Your task to perform on an android device: change alarm snooze length Image 0: 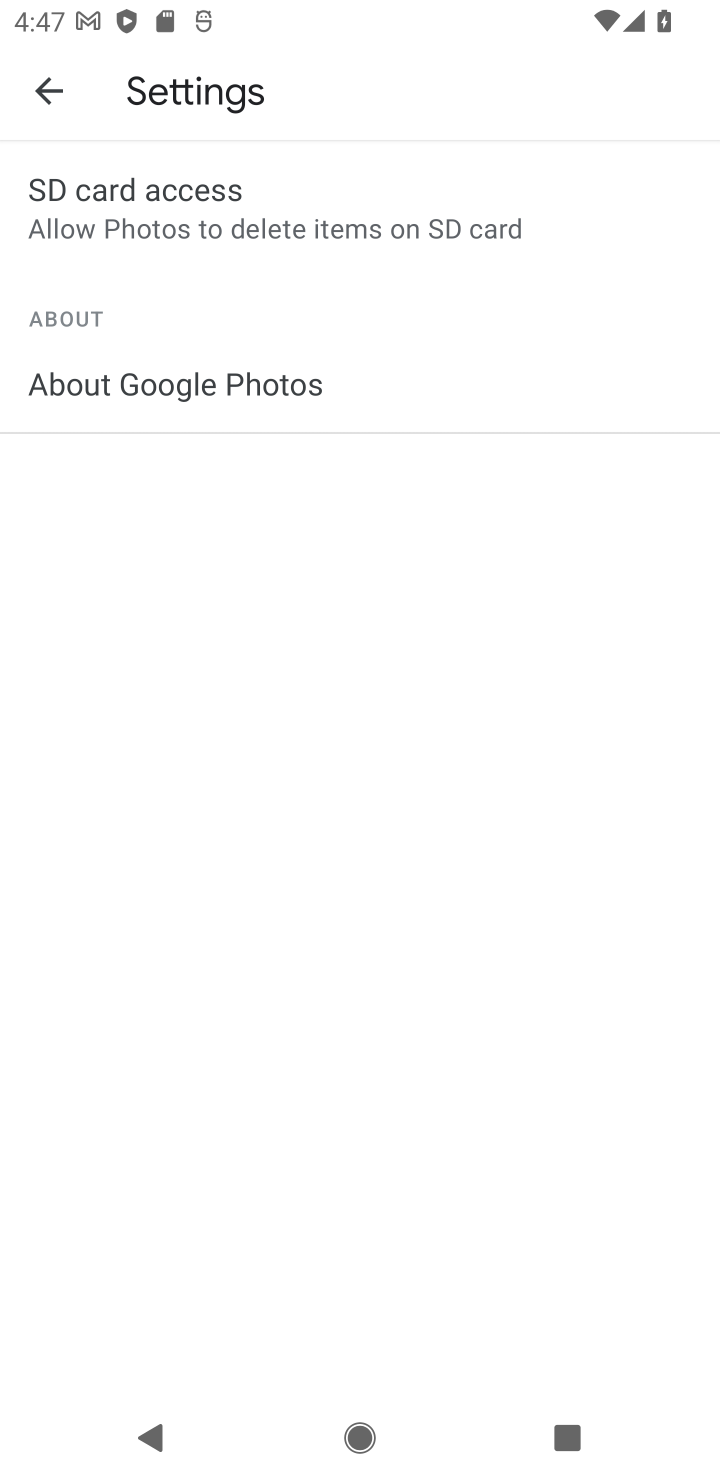
Step 0: press home button
Your task to perform on an android device: change alarm snooze length Image 1: 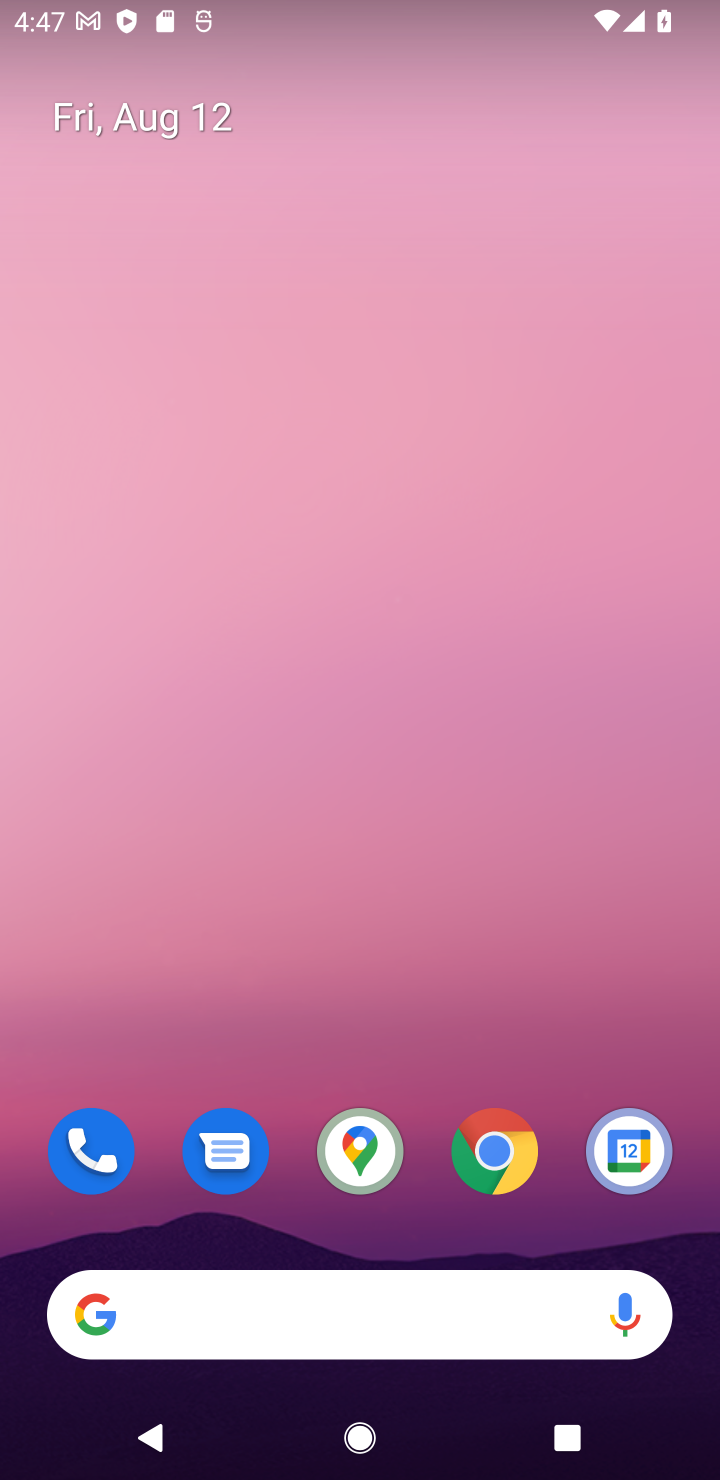
Step 1: drag from (545, 1011) to (707, 702)
Your task to perform on an android device: change alarm snooze length Image 2: 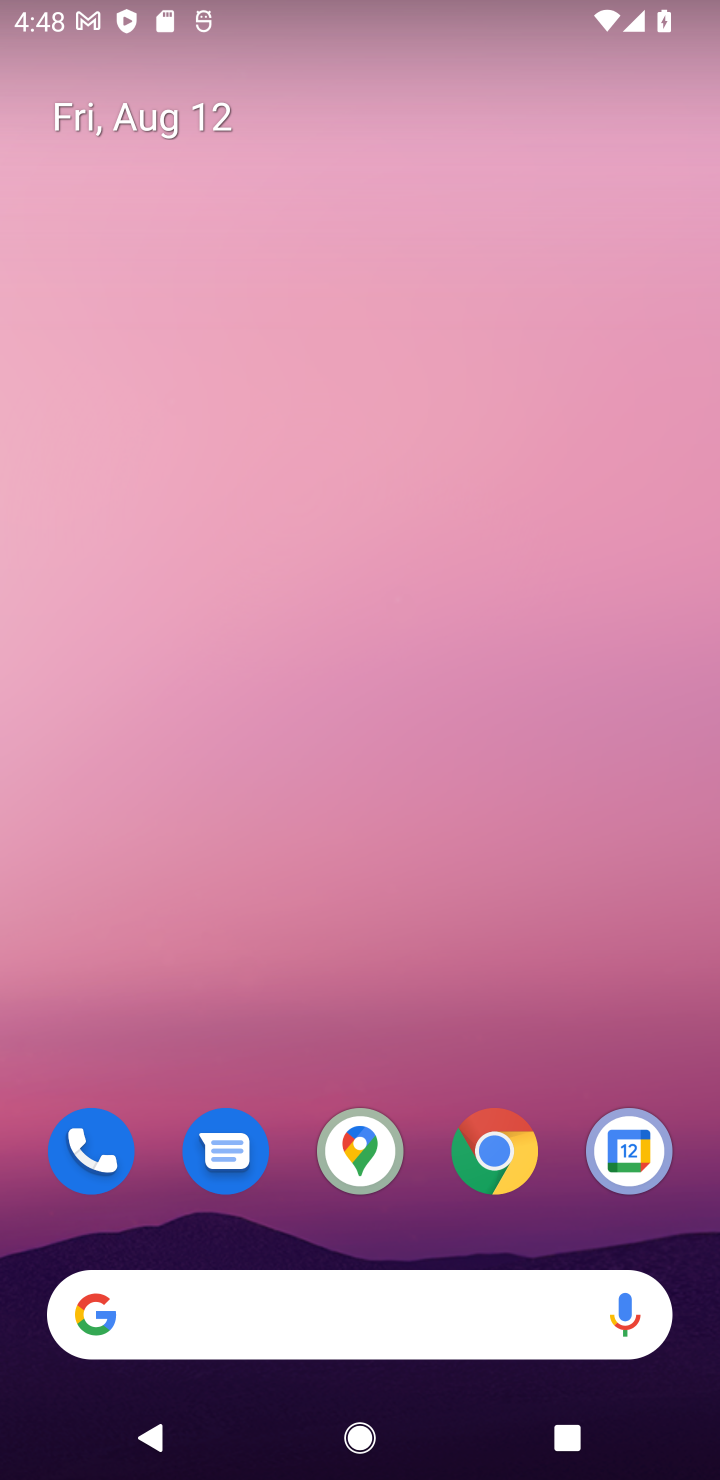
Step 2: drag from (473, 1022) to (583, 155)
Your task to perform on an android device: change alarm snooze length Image 3: 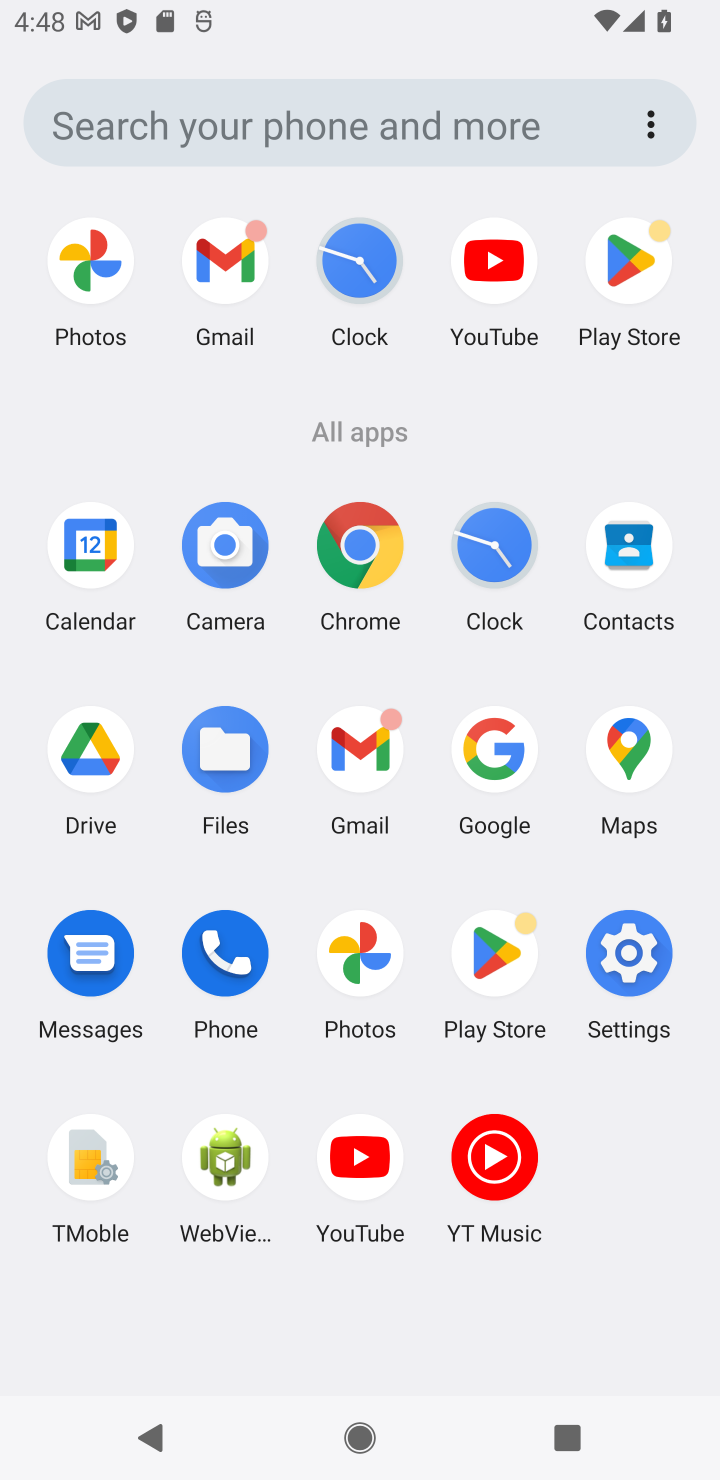
Step 3: click (487, 540)
Your task to perform on an android device: change alarm snooze length Image 4: 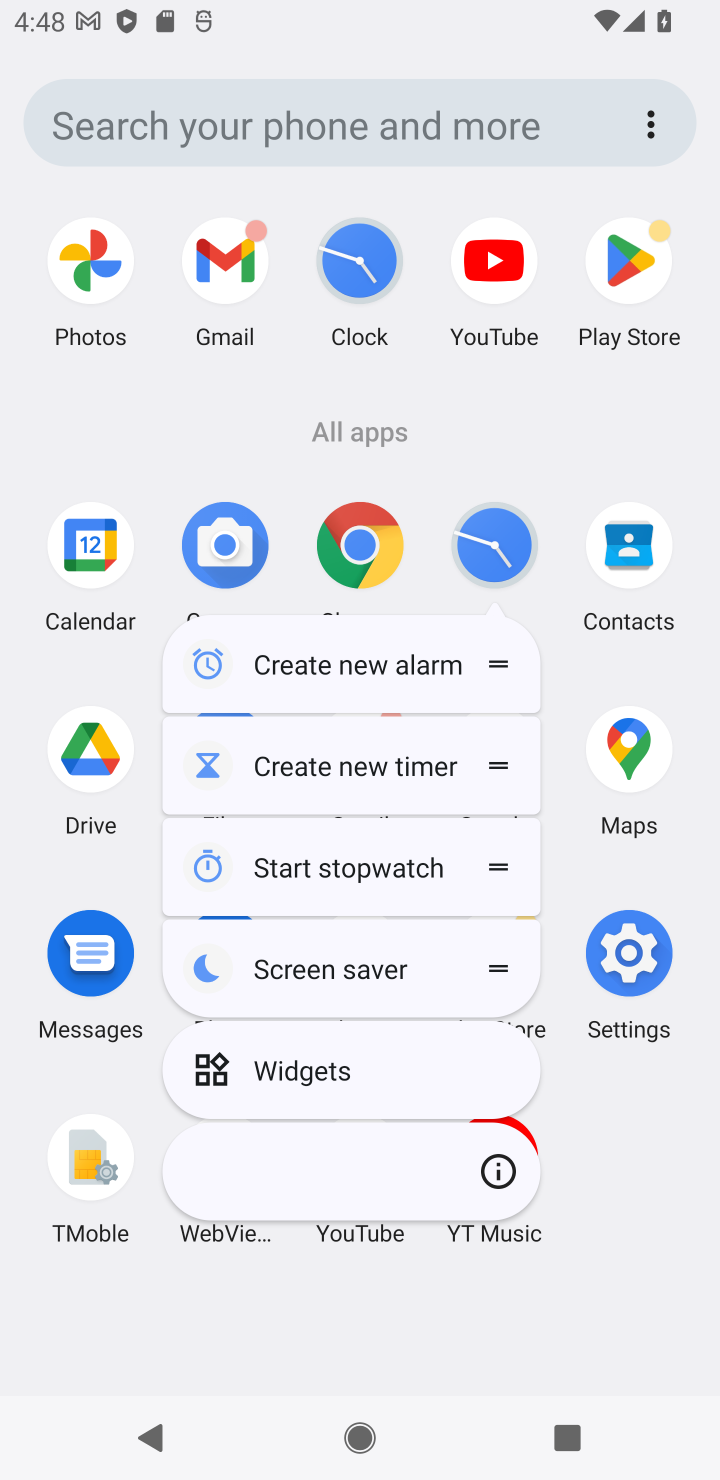
Step 4: click (511, 538)
Your task to perform on an android device: change alarm snooze length Image 5: 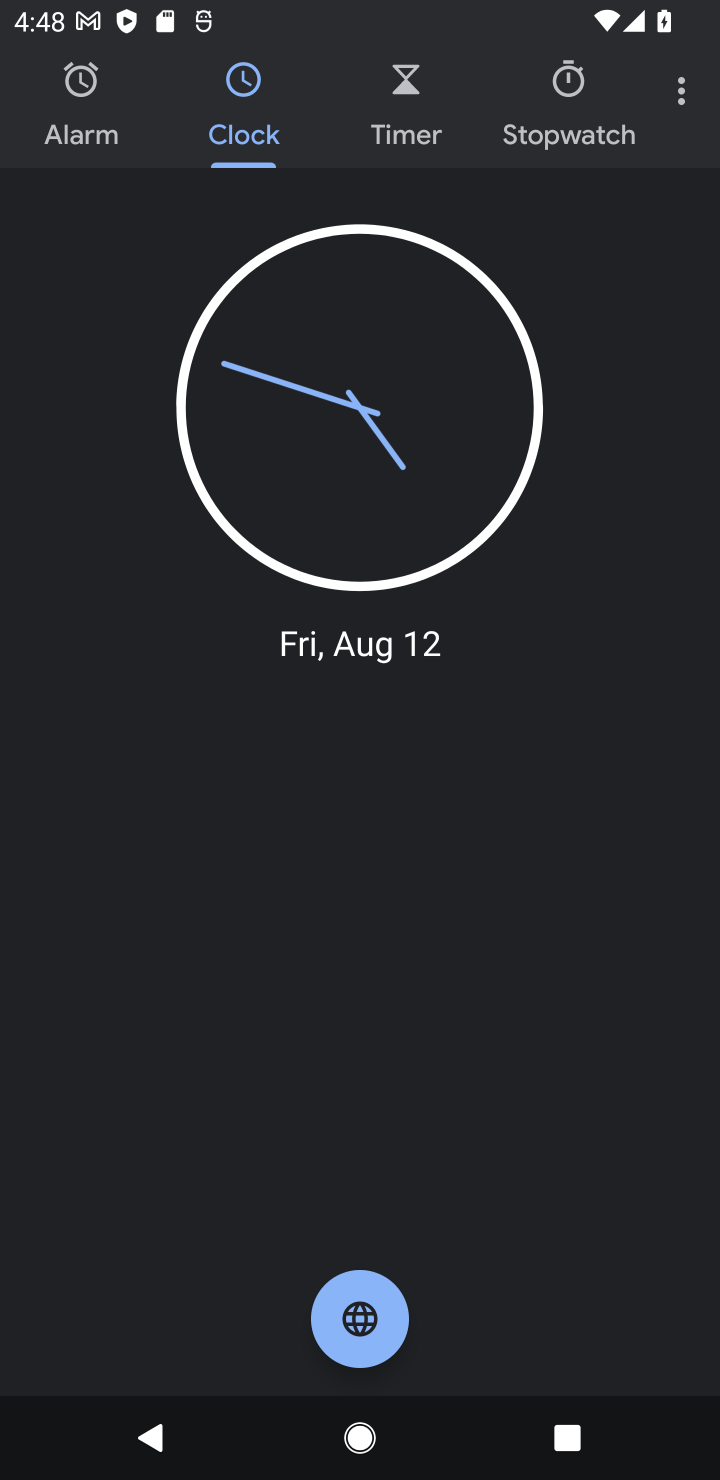
Step 5: click (675, 80)
Your task to perform on an android device: change alarm snooze length Image 6: 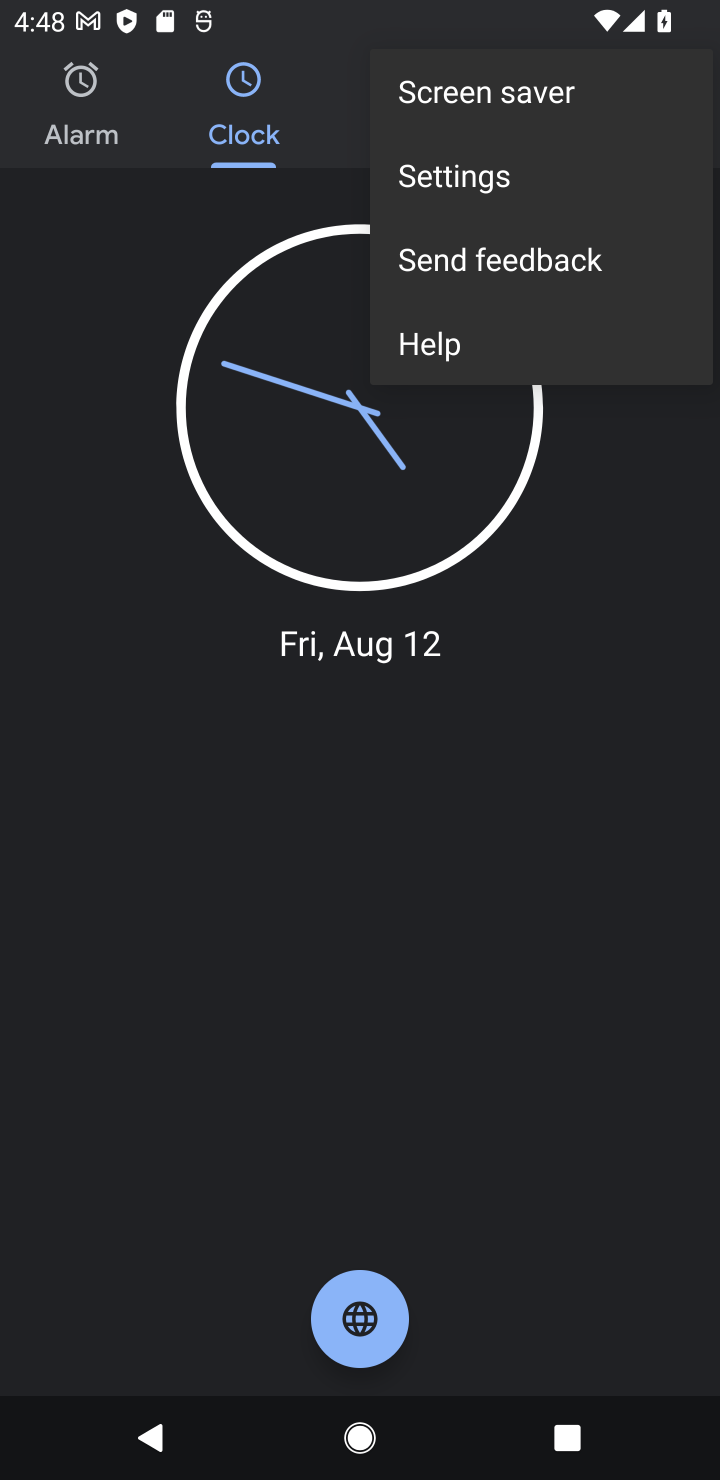
Step 6: click (473, 182)
Your task to perform on an android device: change alarm snooze length Image 7: 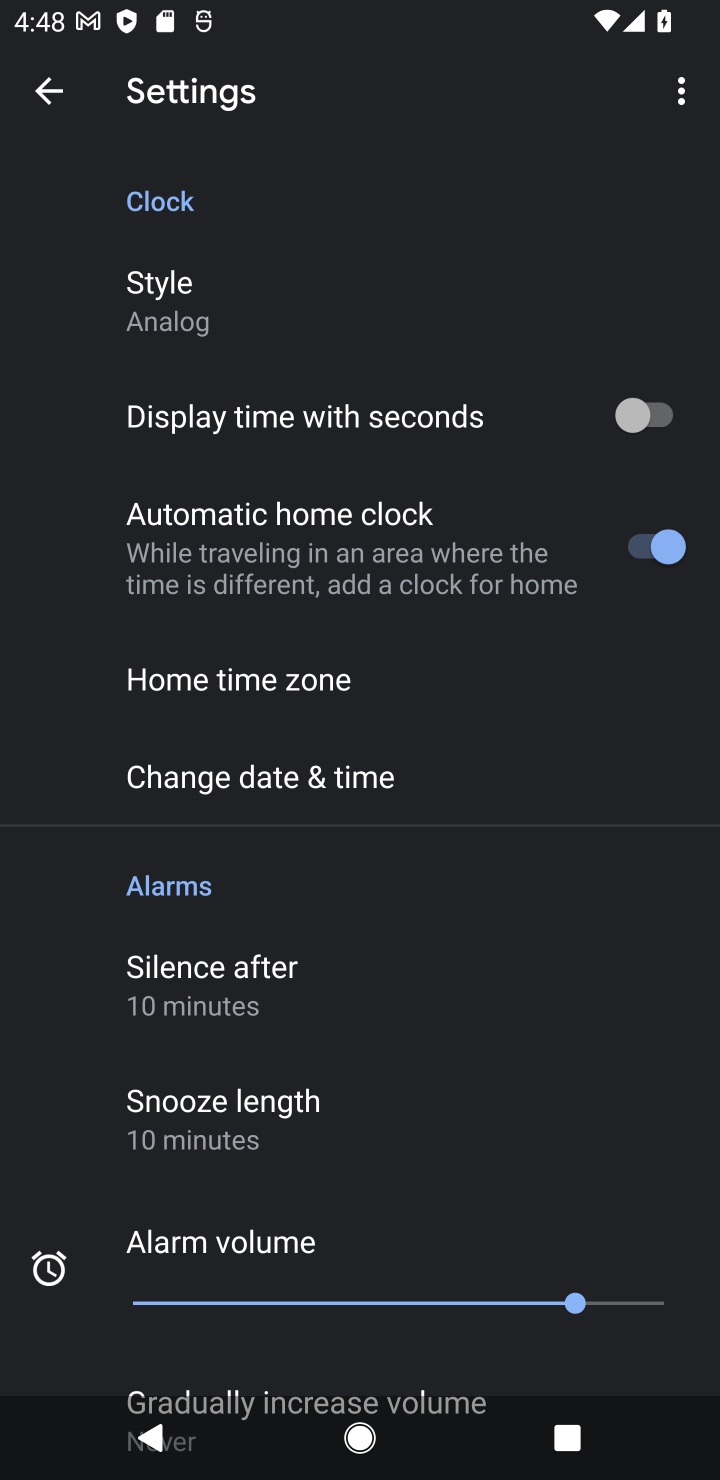
Step 7: click (325, 1124)
Your task to perform on an android device: change alarm snooze length Image 8: 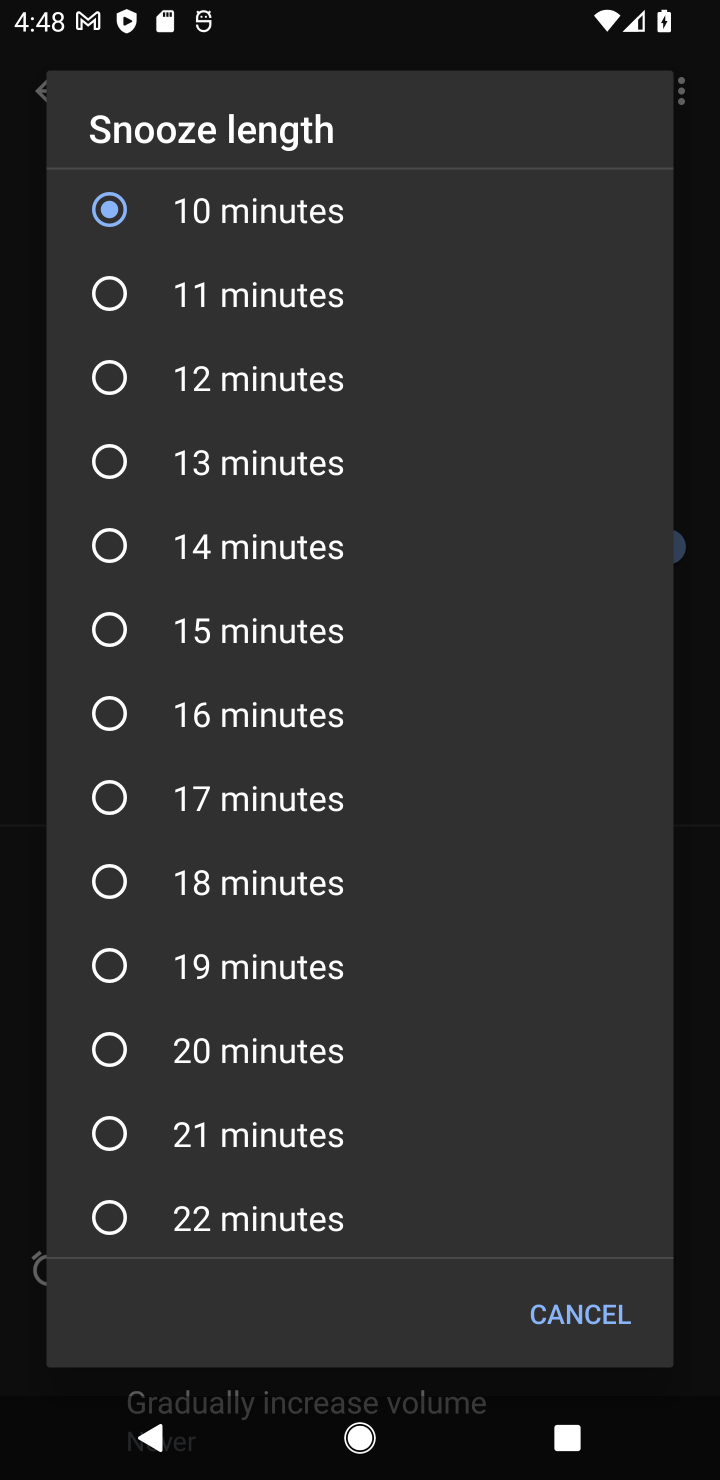
Step 8: click (174, 280)
Your task to perform on an android device: change alarm snooze length Image 9: 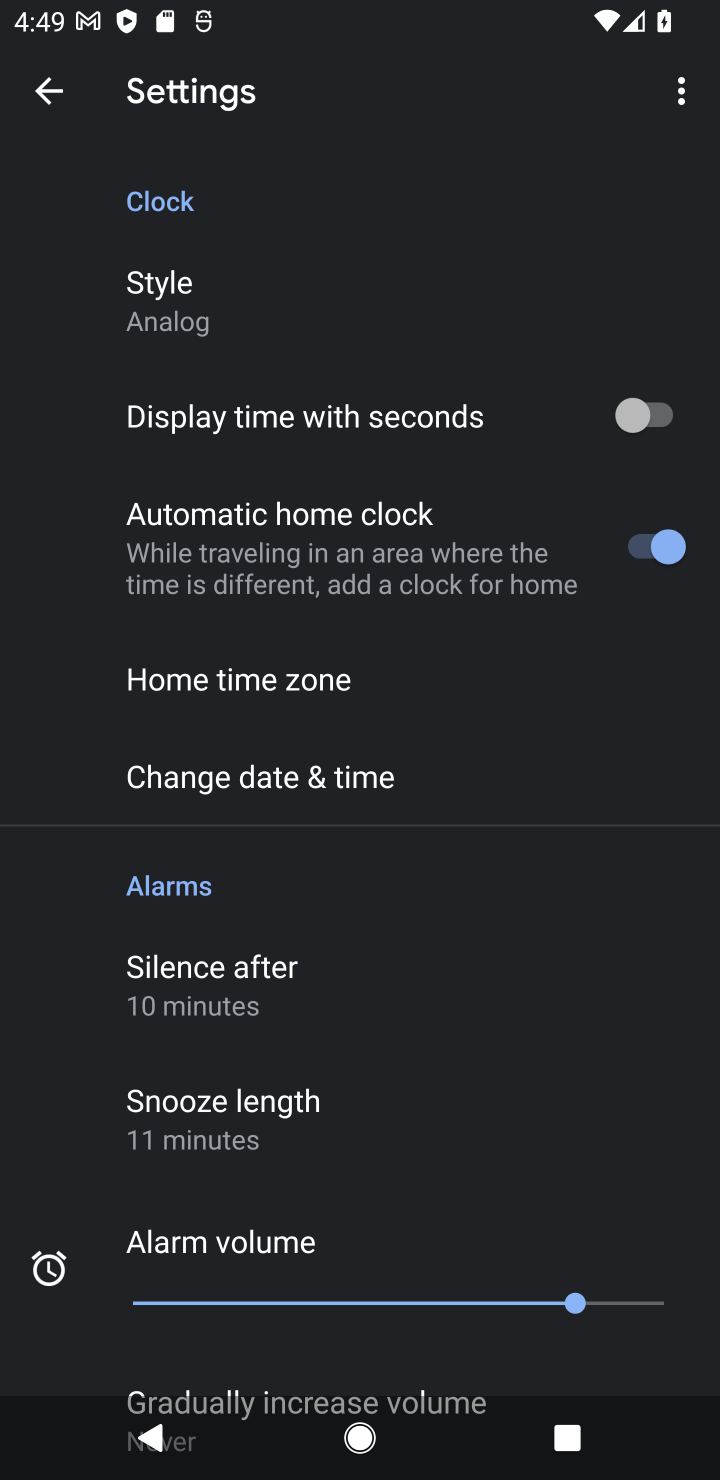
Step 9: task complete